Your task to perform on an android device: Open settings Image 0: 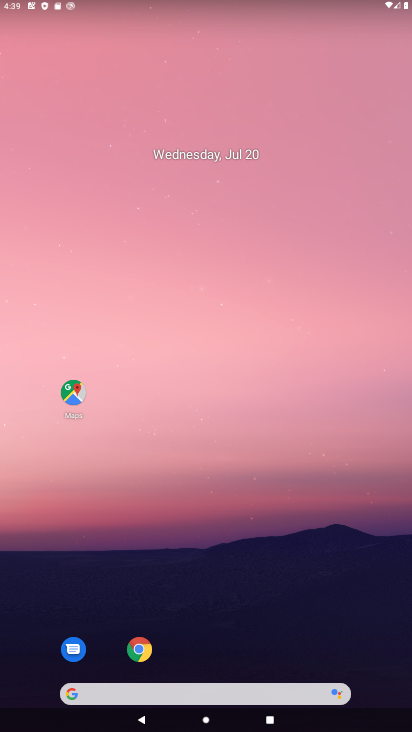
Step 0: drag from (206, 547) to (206, 35)
Your task to perform on an android device: Open settings Image 1: 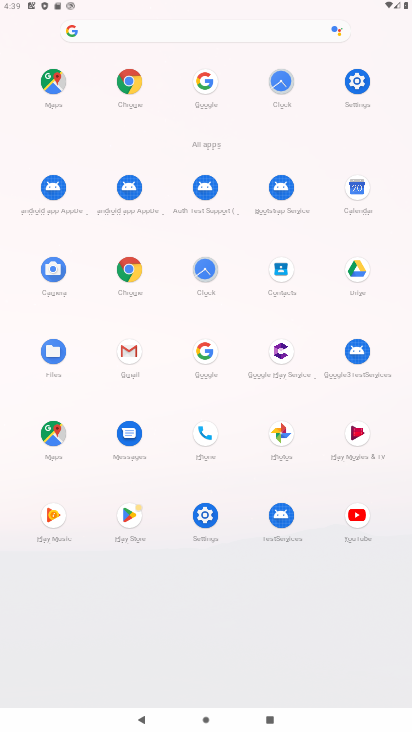
Step 1: click (363, 81)
Your task to perform on an android device: Open settings Image 2: 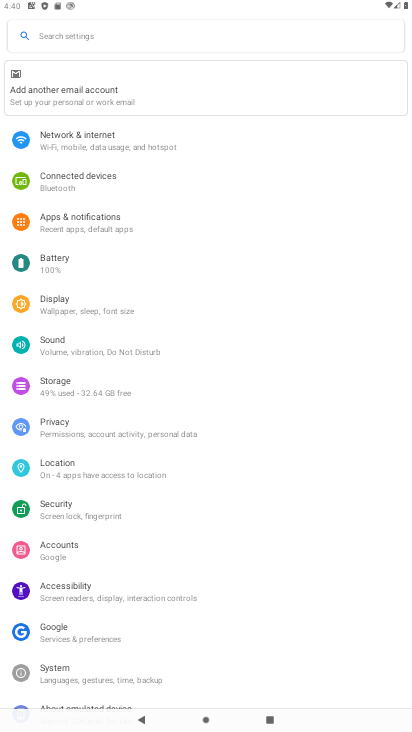
Step 2: task complete